Your task to perform on an android device: Open Amazon Image 0: 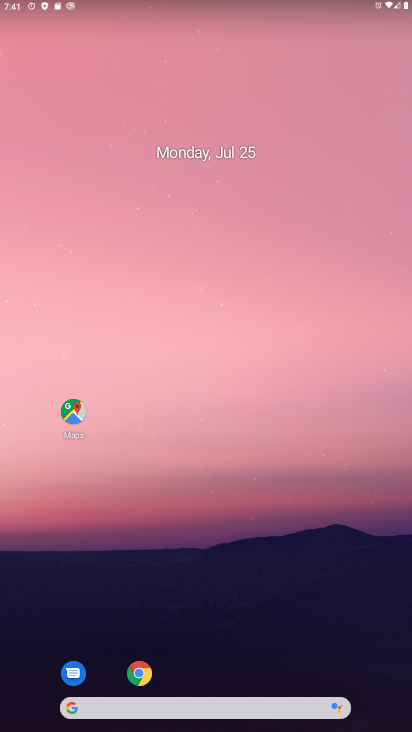
Step 0: drag from (356, 617) to (208, 0)
Your task to perform on an android device: Open Amazon Image 1: 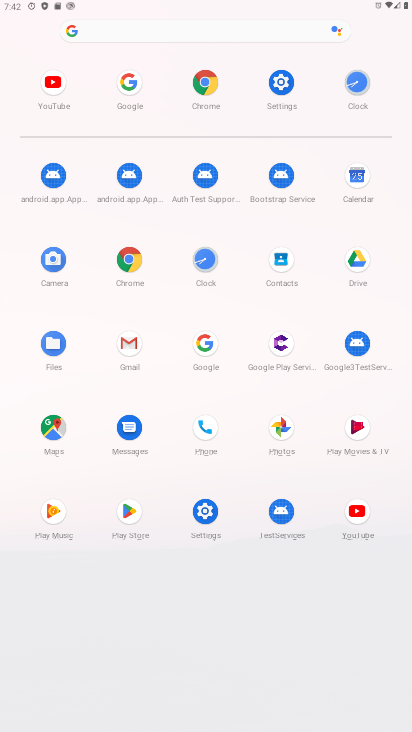
Step 1: click (205, 354)
Your task to perform on an android device: Open Amazon Image 2: 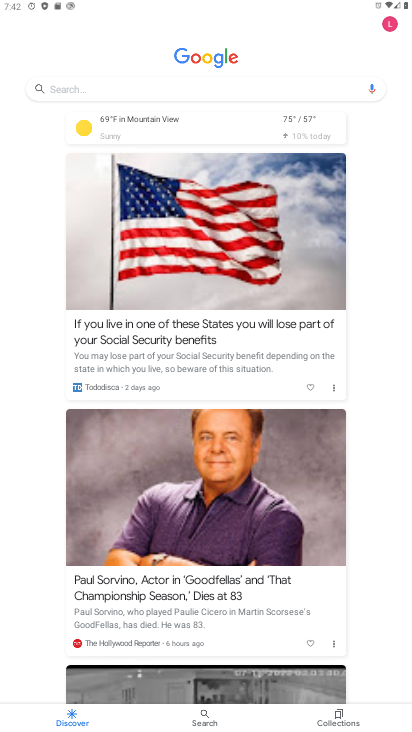
Step 2: click (90, 77)
Your task to perform on an android device: Open Amazon Image 3: 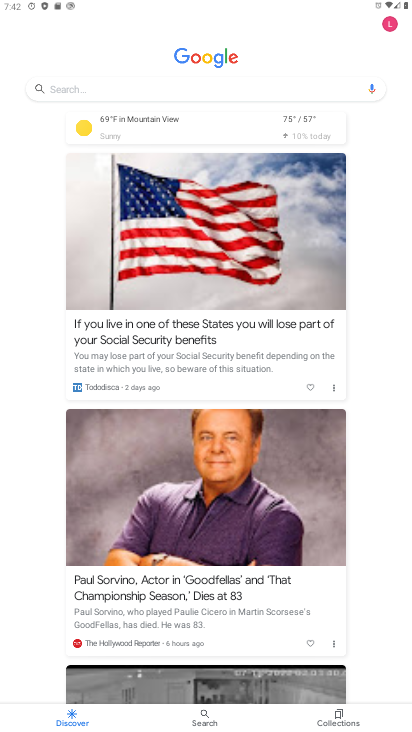
Step 3: click (81, 83)
Your task to perform on an android device: Open Amazon Image 4: 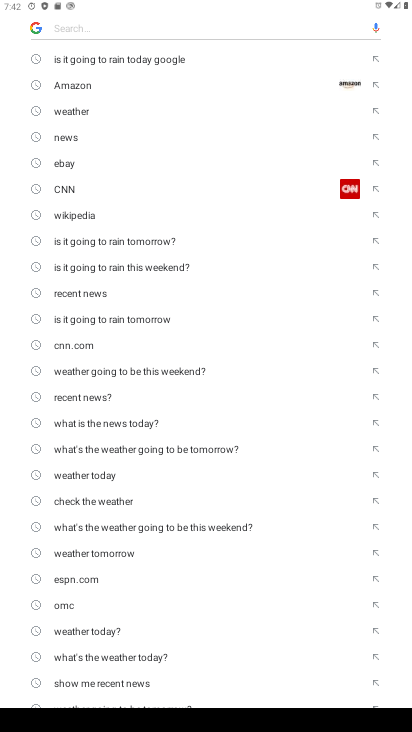
Step 4: click (80, 84)
Your task to perform on an android device: Open Amazon Image 5: 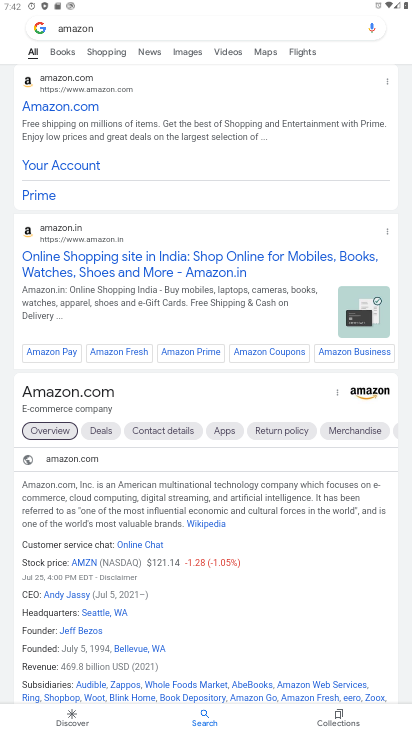
Step 5: task complete